Your task to perform on an android device: set default search engine in the chrome app Image 0: 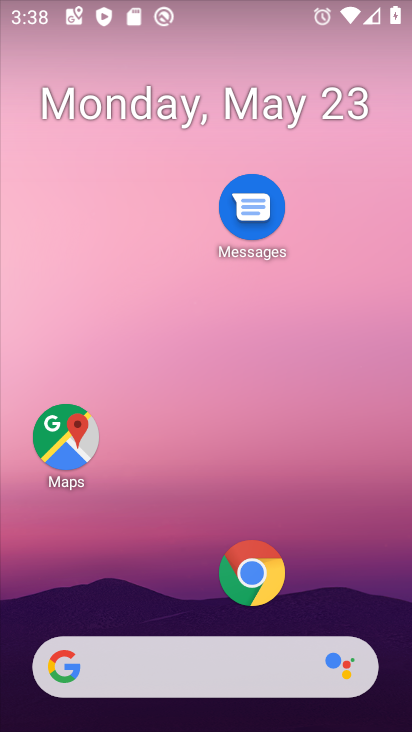
Step 0: drag from (173, 692) to (271, 24)
Your task to perform on an android device: set default search engine in the chrome app Image 1: 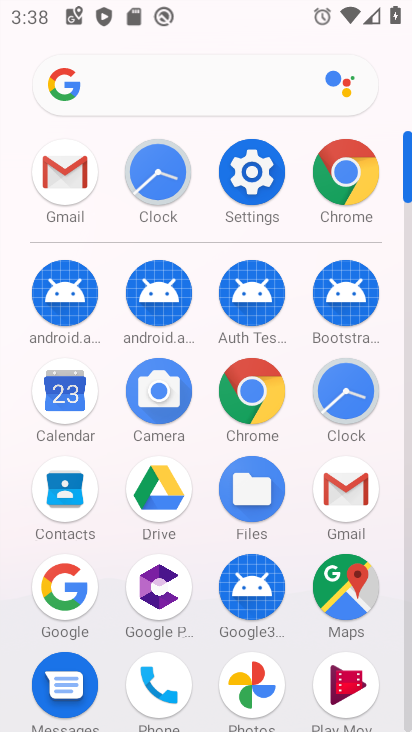
Step 1: click (256, 394)
Your task to perform on an android device: set default search engine in the chrome app Image 2: 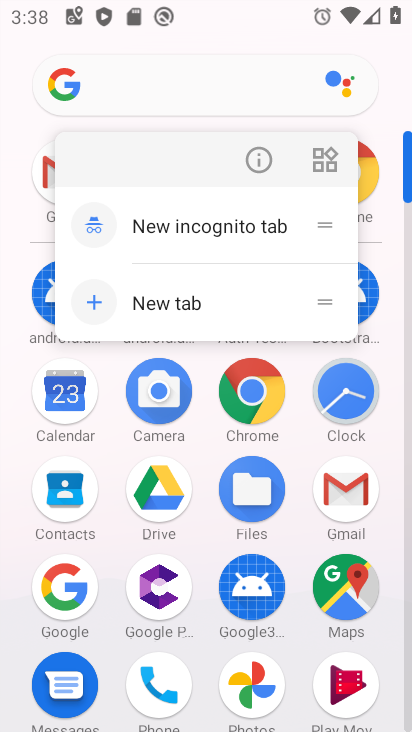
Step 2: click (255, 382)
Your task to perform on an android device: set default search engine in the chrome app Image 3: 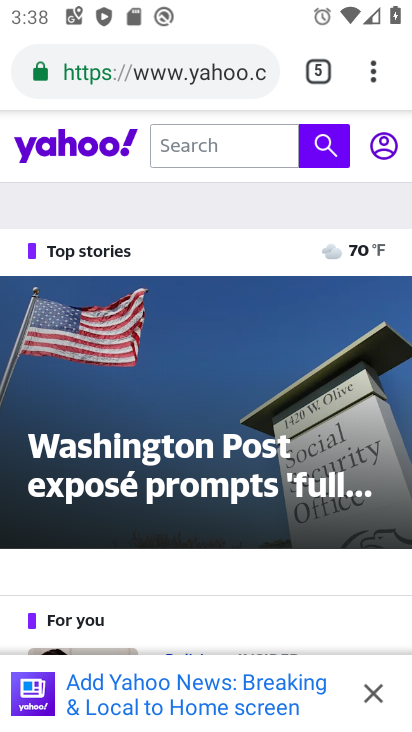
Step 3: drag from (375, 62) to (158, 573)
Your task to perform on an android device: set default search engine in the chrome app Image 4: 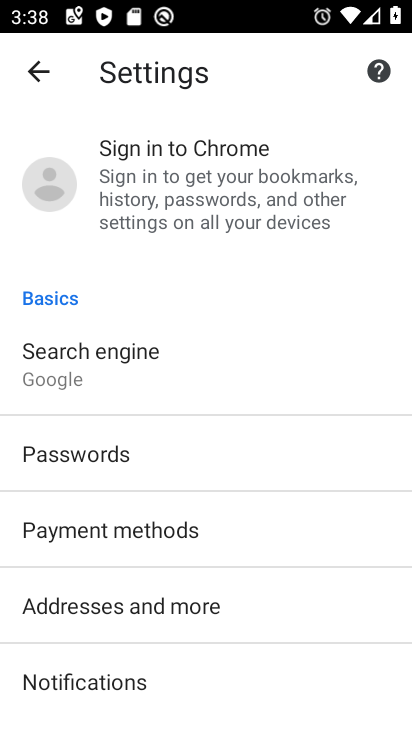
Step 4: drag from (192, 666) to (200, 513)
Your task to perform on an android device: set default search engine in the chrome app Image 5: 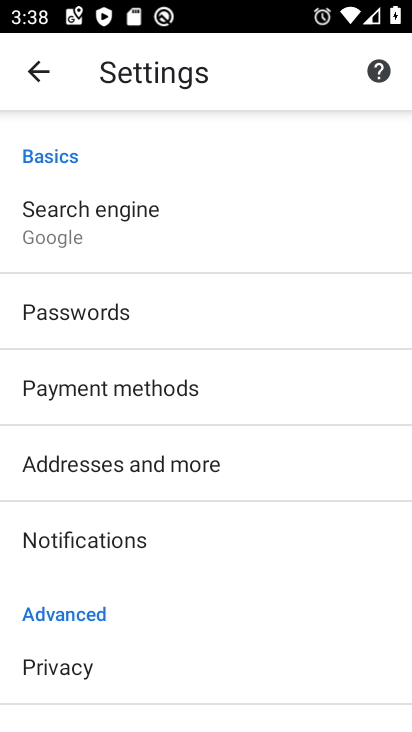
Step 5: click (169, 214)
Your task to perform on an android device: set default search engine in the chrome app Image 6: 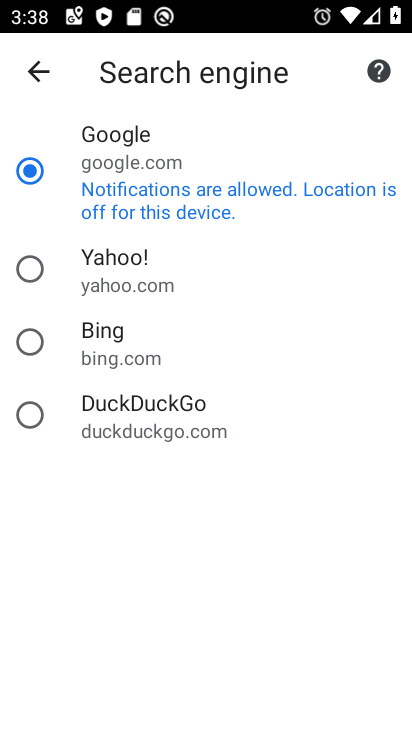
Step 6: click (266, 192)
Your task to perform on an android device: set default search engine in the chrome app Image 7: 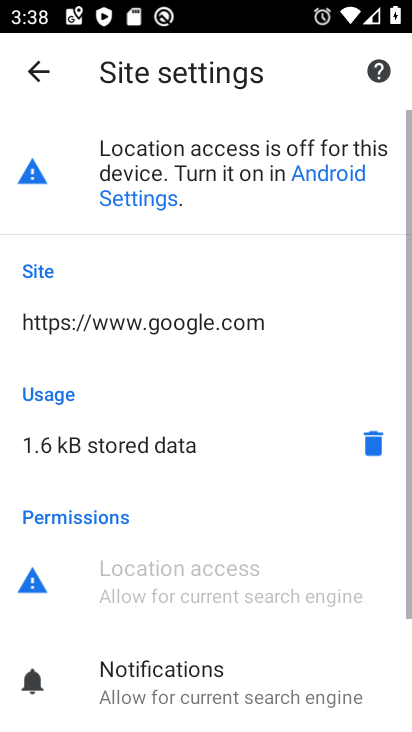
Step 7: task complete